Your task to perform on an android device: Go to internet settings Image 0: 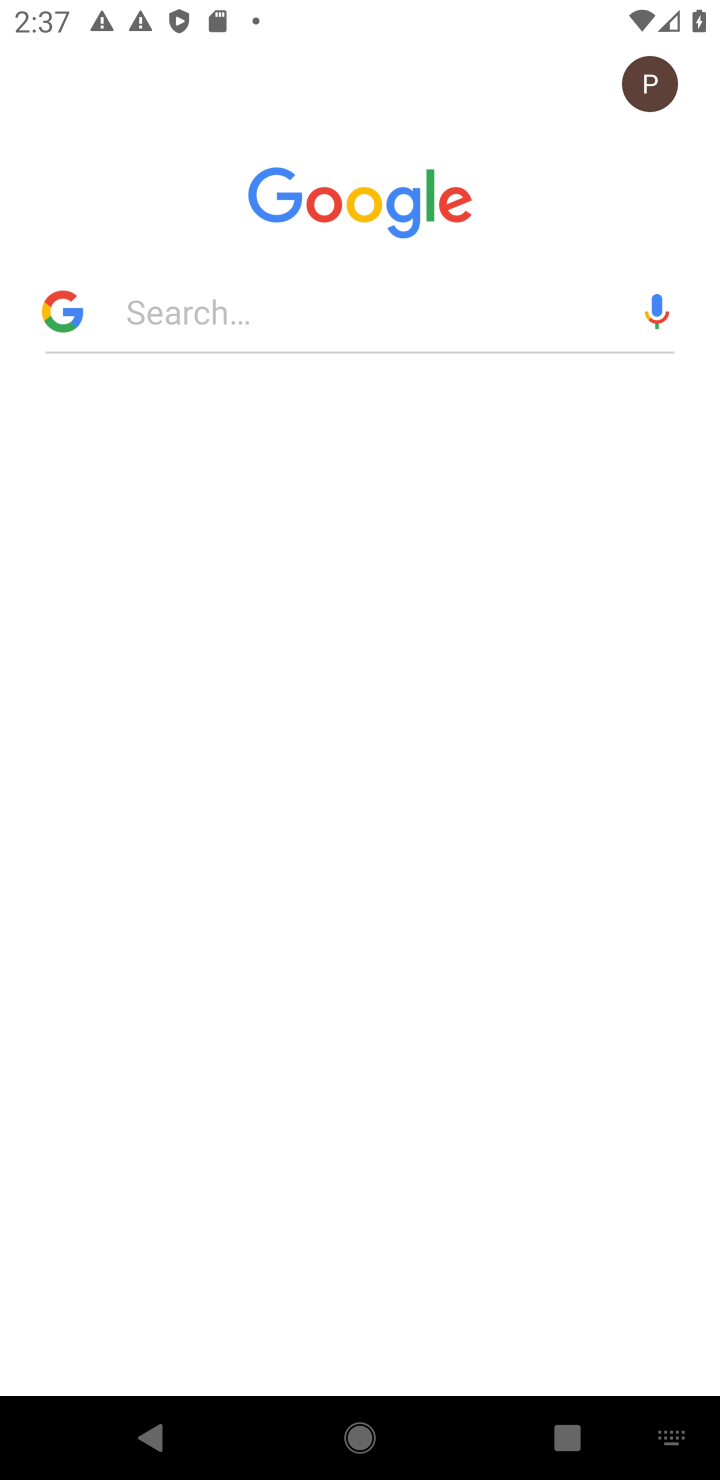
Step 0: press home button
Your task to perform on an android device: Go to internet settings Image 1: 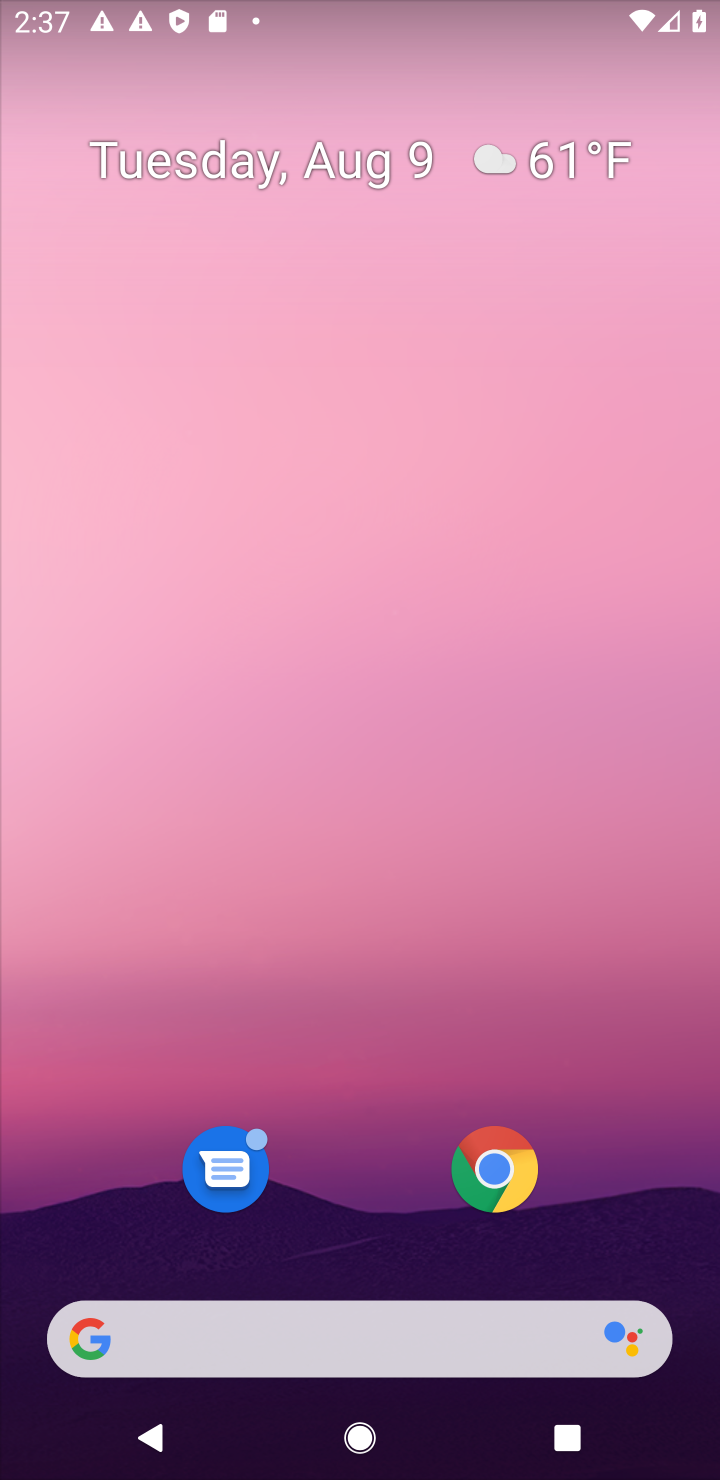
Step 1: drag from (649, 1106) to (562, 378)
Your task to perform on an android device: Go to internet settings Image 2: 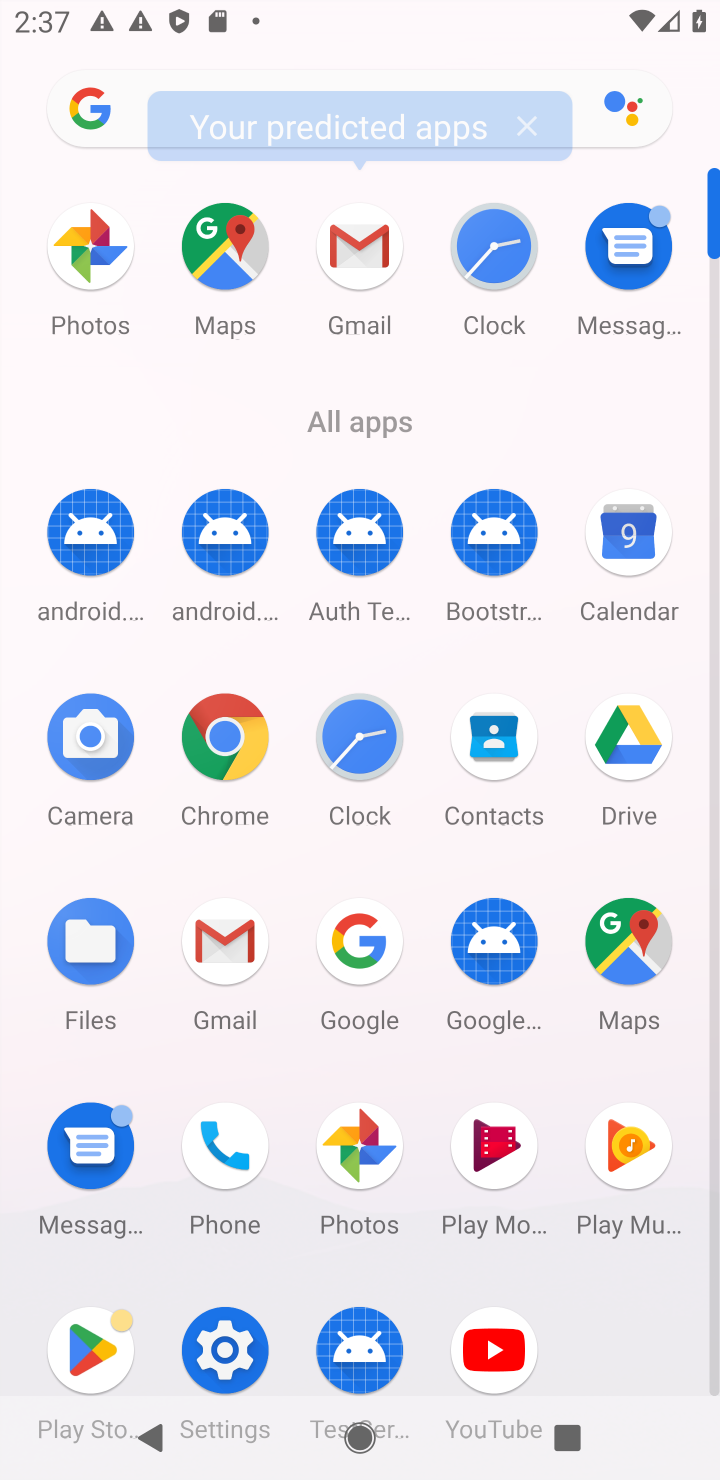
Step 2: click (229, 1353)
Your task to perform on an android device: Go to internet settings Image 3: 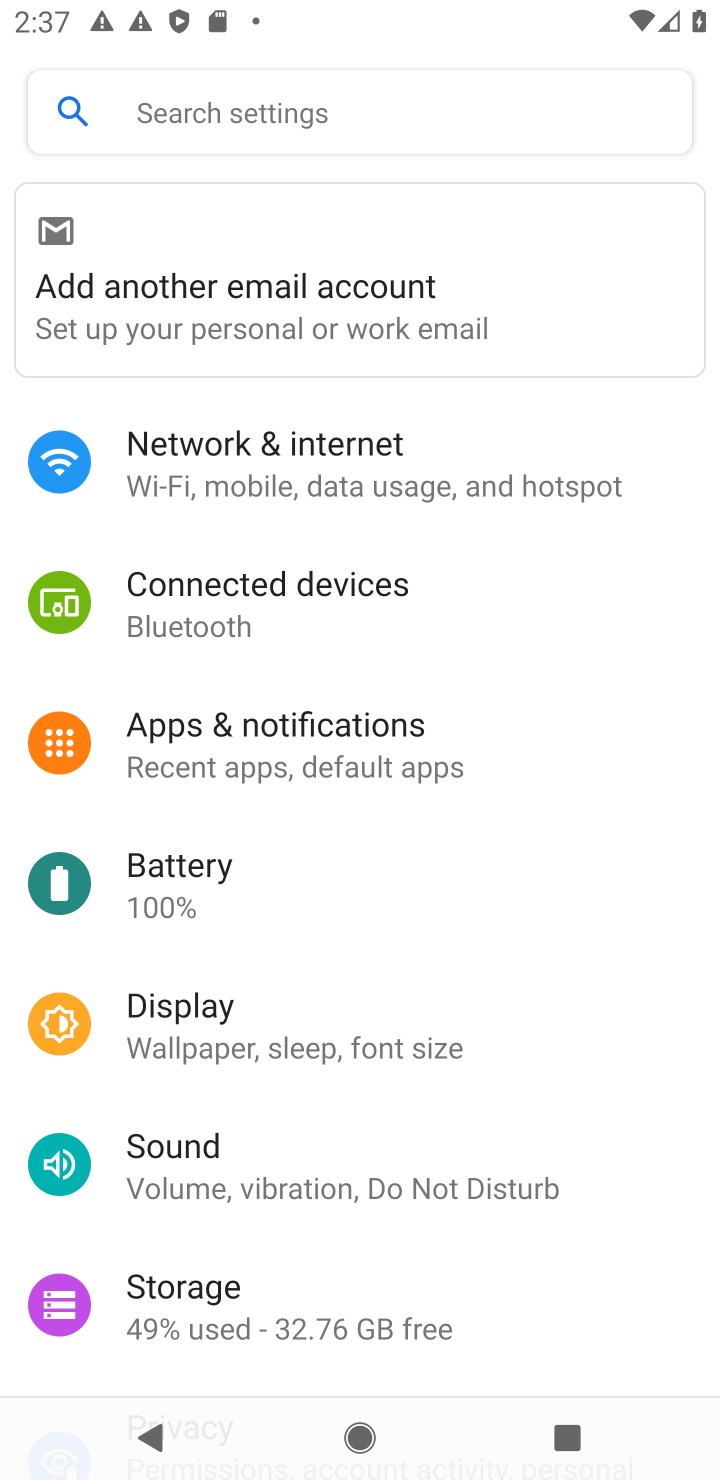
Step 3: click (345, 447)
Your task to perform on an android device: Go to internet settings Image 4: 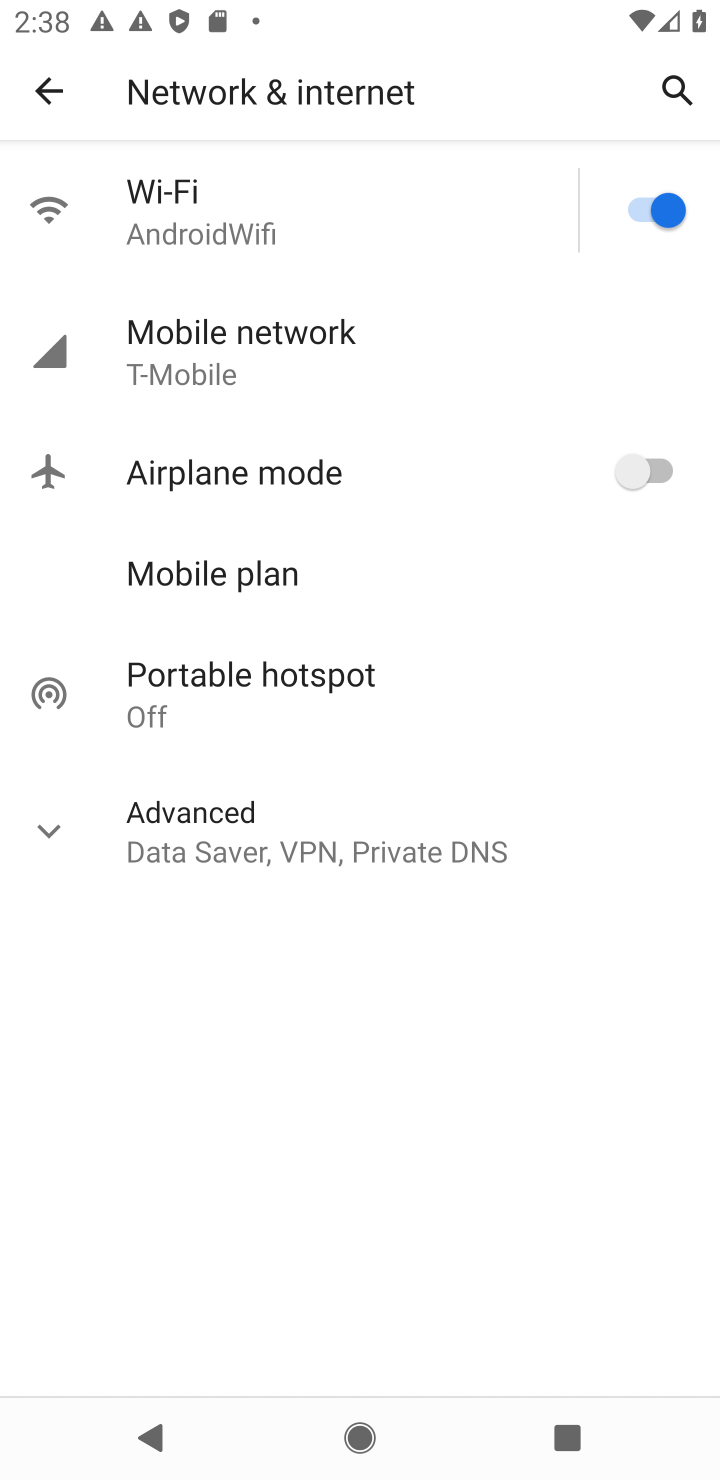
Step 4: task complete